Your task to perform on an android device: turn off translation in the chrome app Image 0: 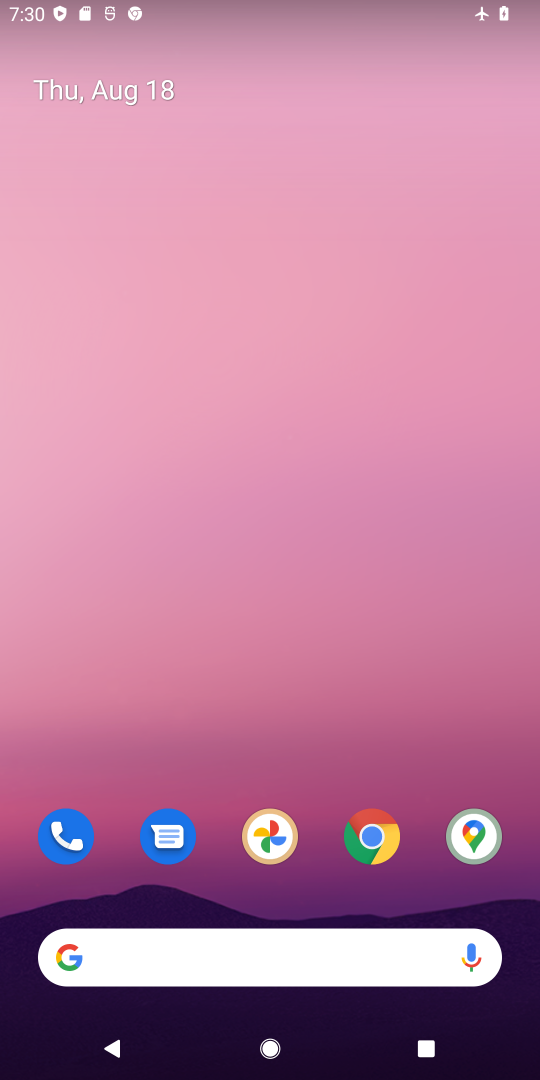
Step 0: drag from (433, 753) to (450, 0)
Your task to perform on an android device: turn off translation in the chrome app Image 1: 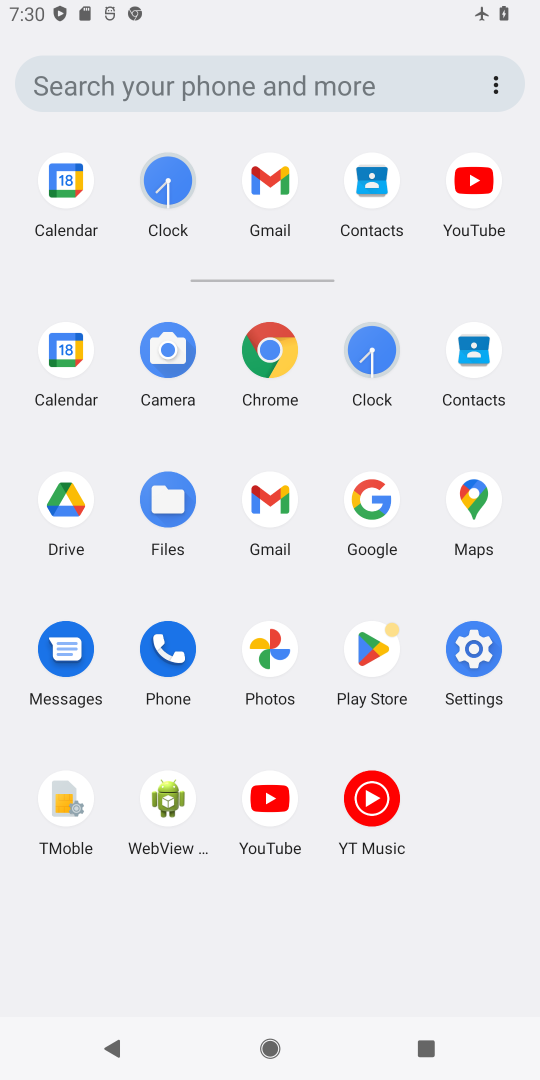
Step 1: click (276, 355)
Your task to perform on an android device: turn off translation in the chrome app Image 2: 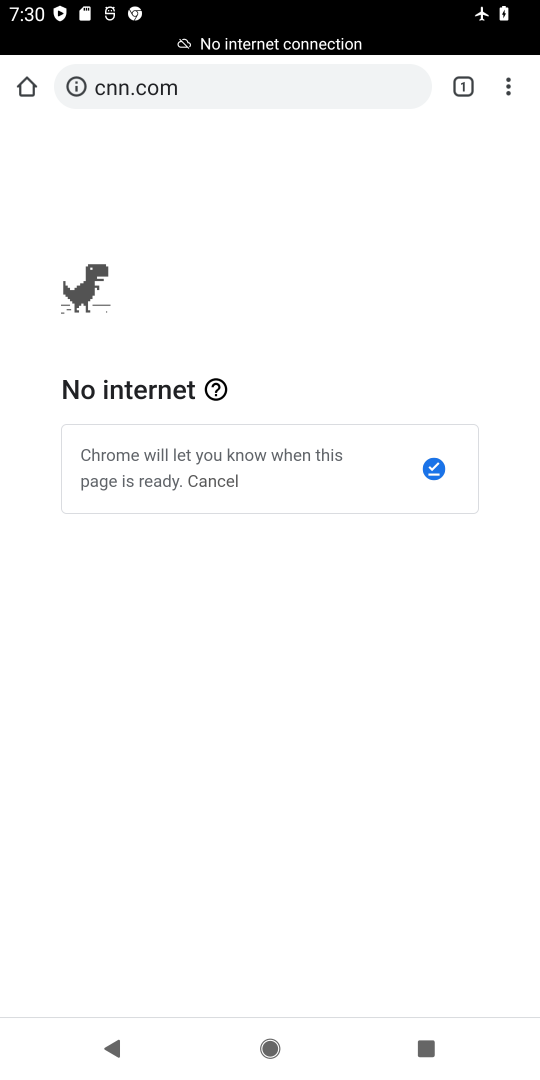
Step 2: drag from (505, 79) to (307, 791)
Your task to perform on an android device: turn off translation in the chrome app Image 3: 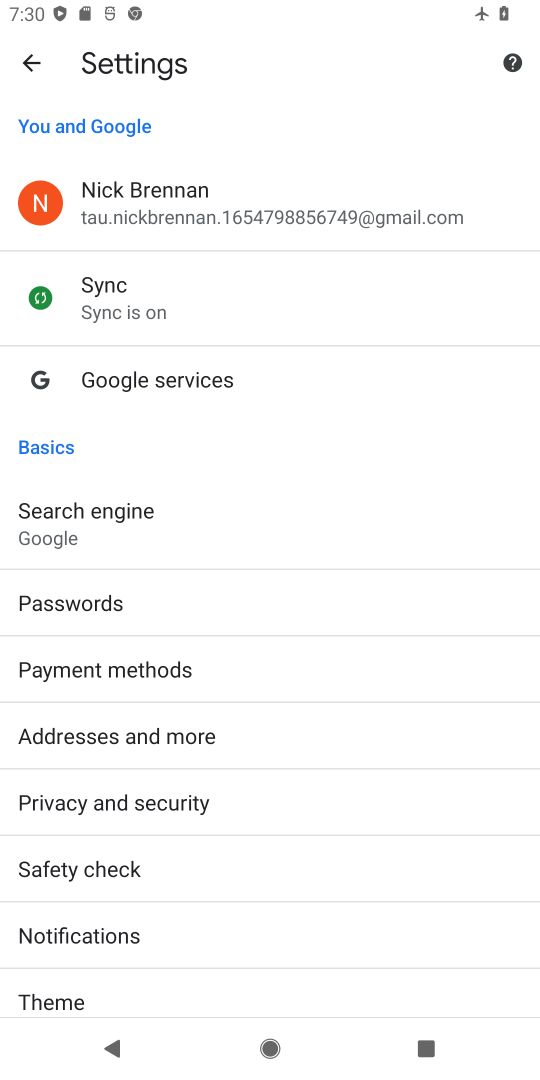
Step 3: drag from (291, 895) to (463, 138)
Your task to perform on an android device: turn off translation in the chrome app Image 4: 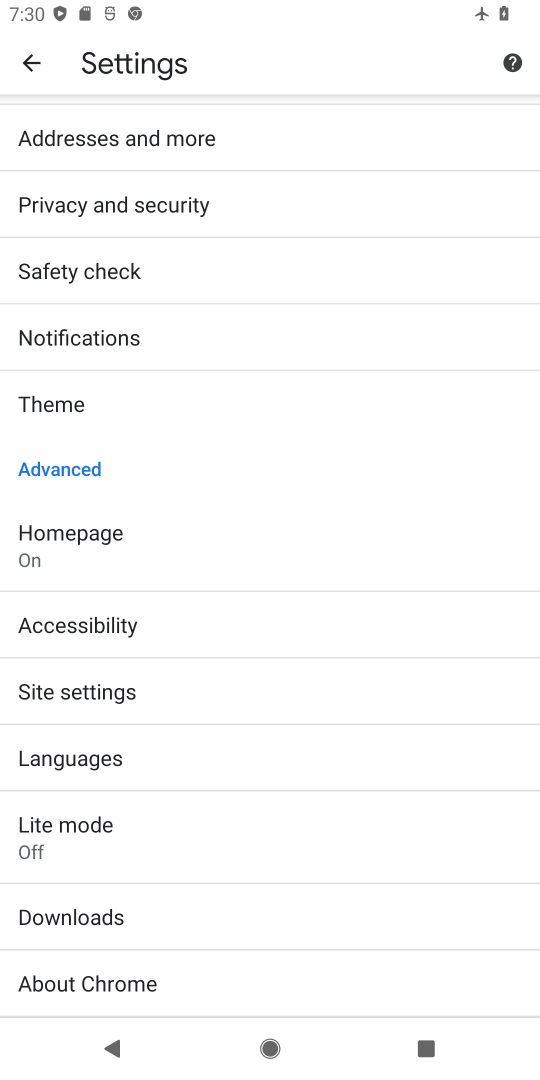
Step 4: click (115, 767)
Your task to perform on an android device: turn off translation in the chrome app Image 5: 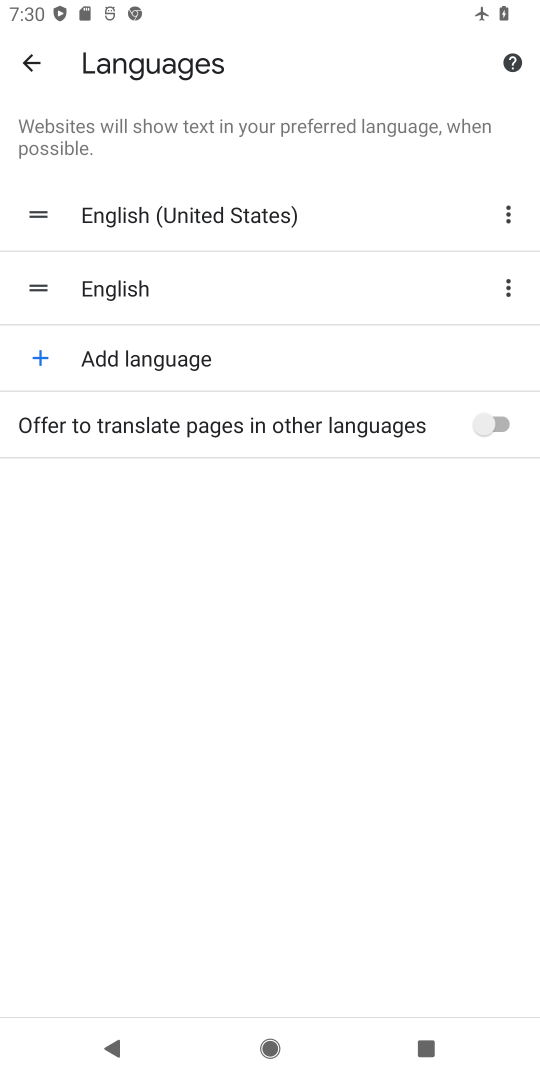
Step 5: task complete